Your task to perform on an android device: clear history in the chrome app Image 0: 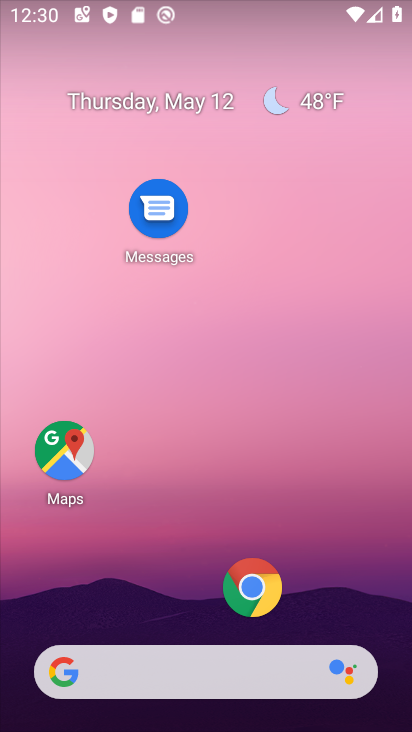
Step 0: drag from (209, 641) to (166, 41)
Your task to perform on an android device: clear history in the chrome app Image 1: 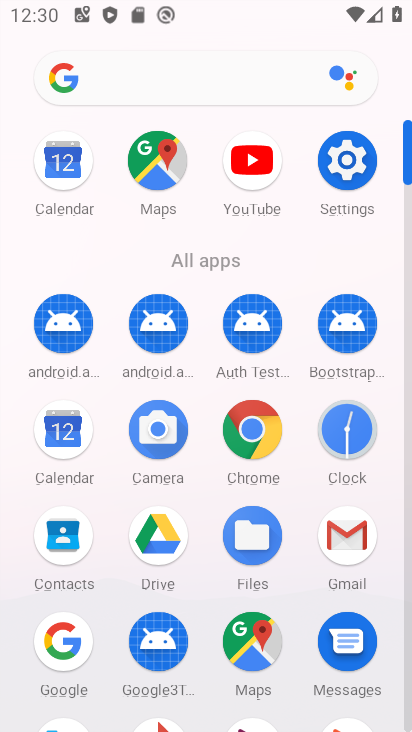
Step 1: click (244, 429)
Your task to perform on an android device: clear history in the chrome app Image 2: 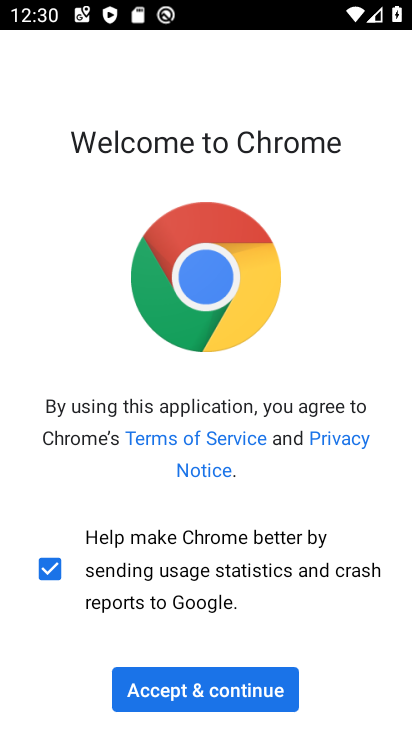
Step 2: click (222, 679)
Your task to perform on an android device: clear history in the chrome app Image 3: 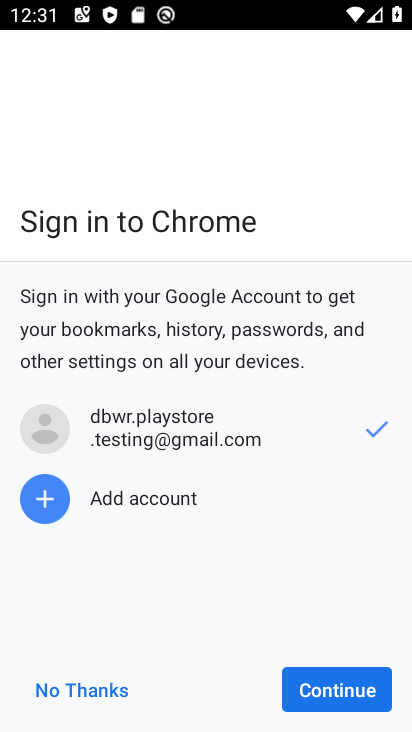
Step 3: click (372, 679)
Your task to perform on an android device: clear history in the chrome app Image 4: 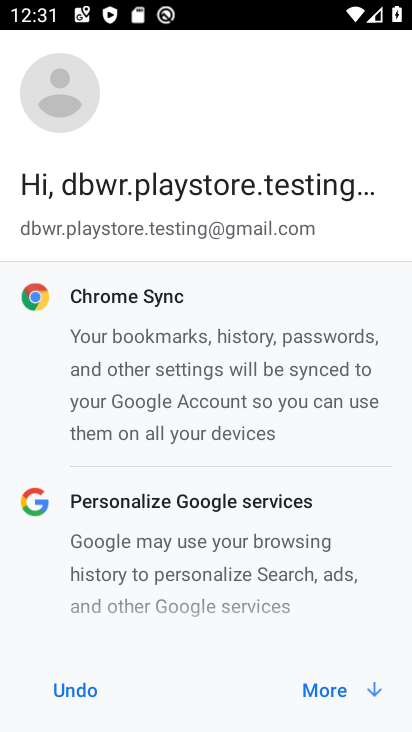
Step 4: click (351, 680)
Your task to perform on an android device: clear history in the chrome app Image 5: 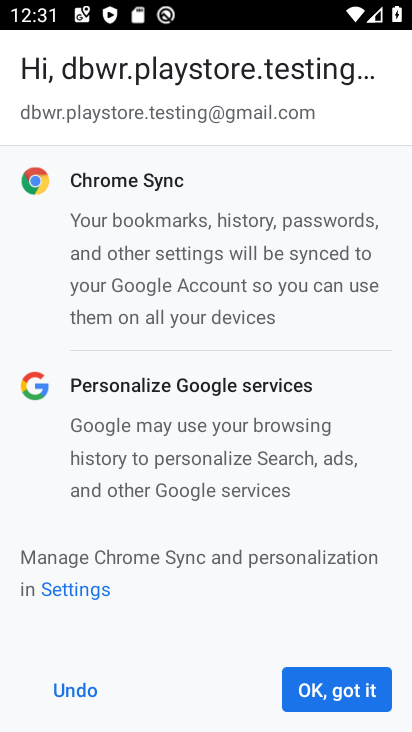
Step 5: click (373, 695)
Your task to perform on an android device: clear history in the chrome app Image 6: 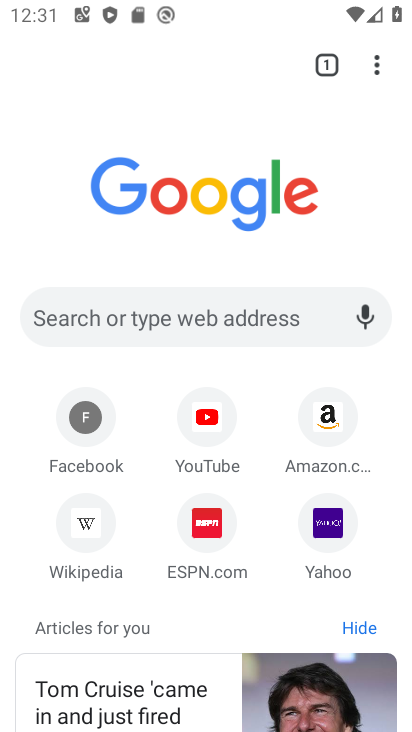
Step 6: click (375, 60)
Your task to perform on an android device: clear history in the chrome app Image 7: 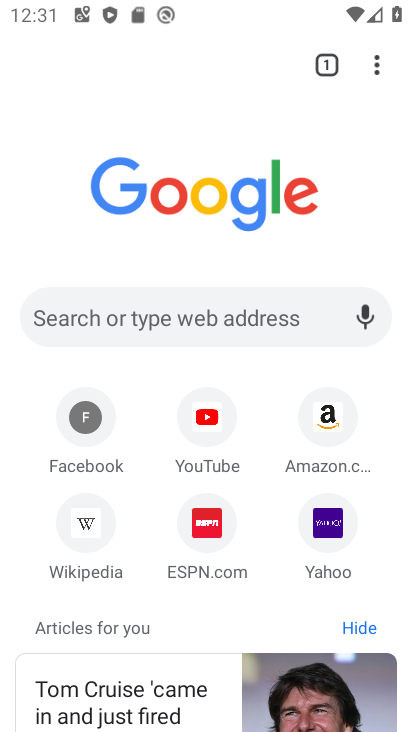
Step 7: click (367, 70)
Your task to perform on an android device: clear history in the chrome app Image 8: 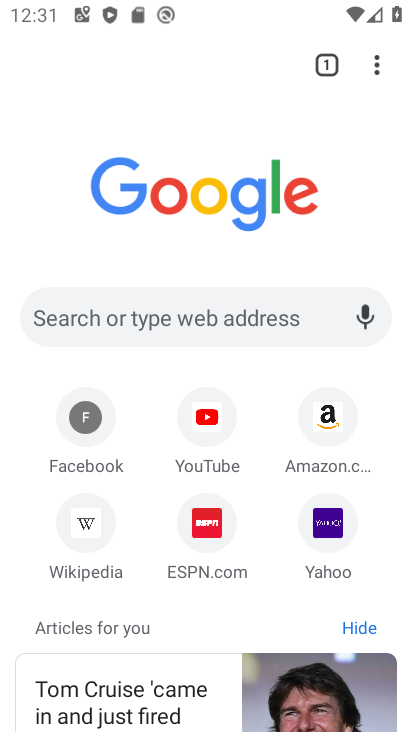
Step 8: click (377, 59)
Your task to perform on an android device: clear history in the chrome app Image 9: 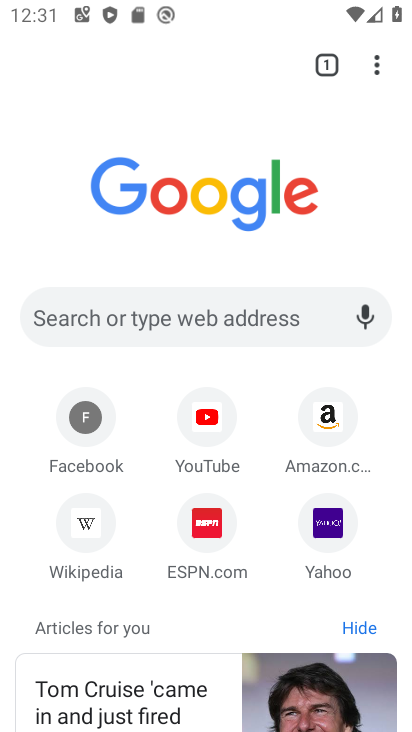
Step 9: task complete